Your task to perform on an android device: toggle location history Image 0: 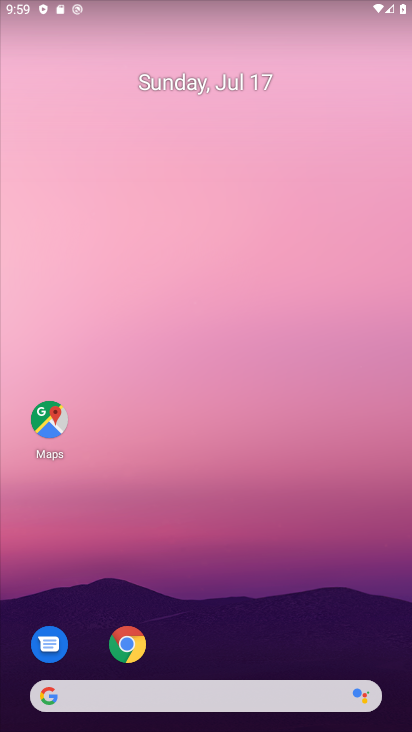
Step 0: drag from (228, 615) to (75, 37)
Your task to perform on an android device: toggle location history Image 1: 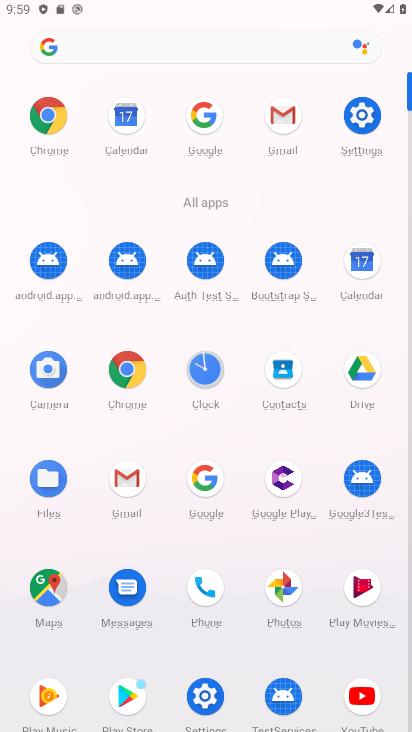
Step 1: click (359, 111)
Your task to perform on an android device: toggle location history Image 2: 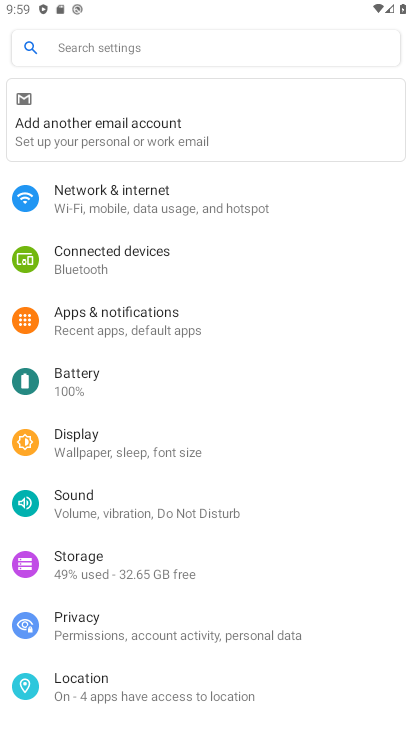
Step 2: click (111, 675)
Your task to perform on an android device: toggle location history Image 3: 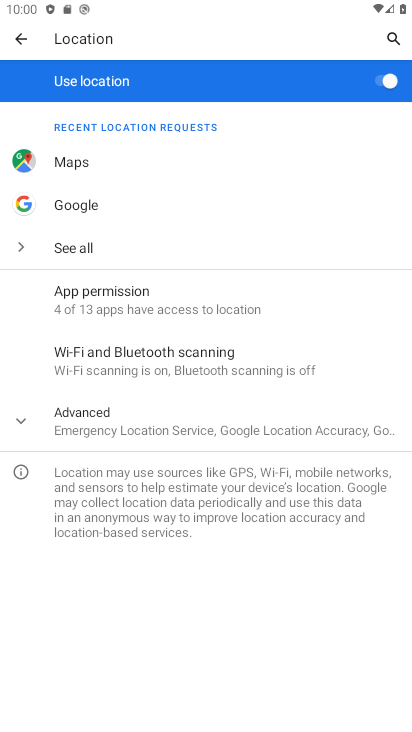
Step 3: click (130, 428)
Your task to perform on an android device: toggle location history Image 4: 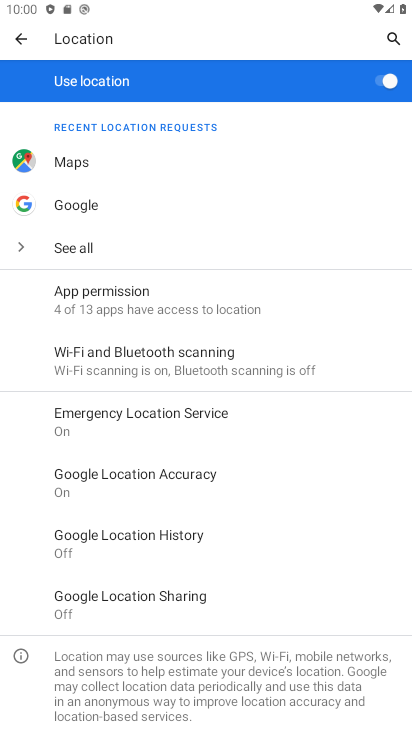
Step 4: click (198, 531)
Your task to perform on an android device: toggle location history Image 5: 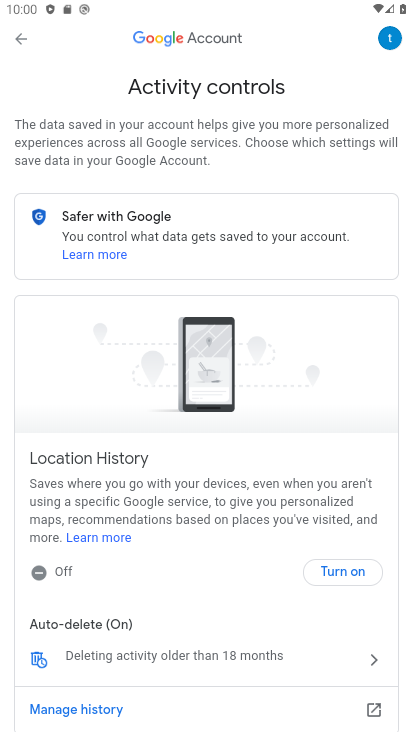
Step 5: click (345, 568)
Your task to perform on an android device: toggle location history Image 6: 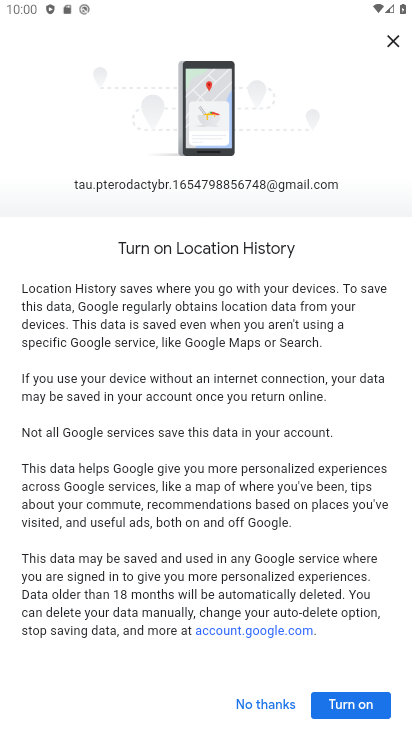
Step 6: drag from (271, 616) to (266, 19)
Your task to perform on an android device: toggle location history Image 7: 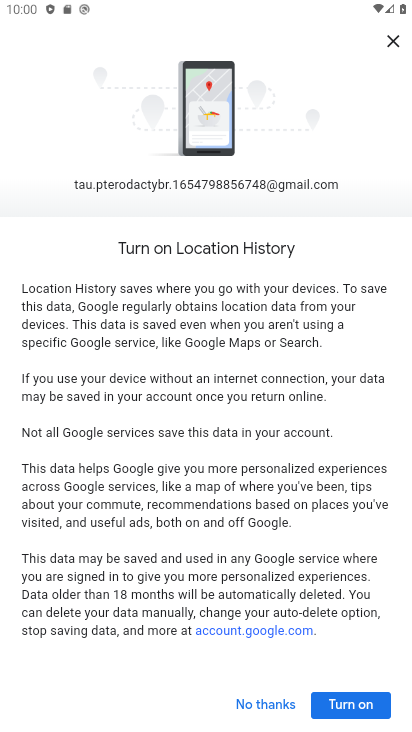
Step 7: drag from (213, 570) to (154, 17)
Your task to perform on an android device: toggle location history Image 8: 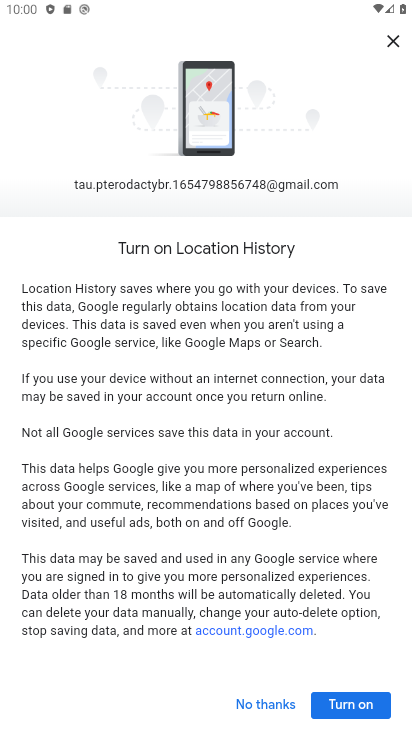
Step 8: click (362, 708)
Your task to perform on an android device: toggle location history Image 9: 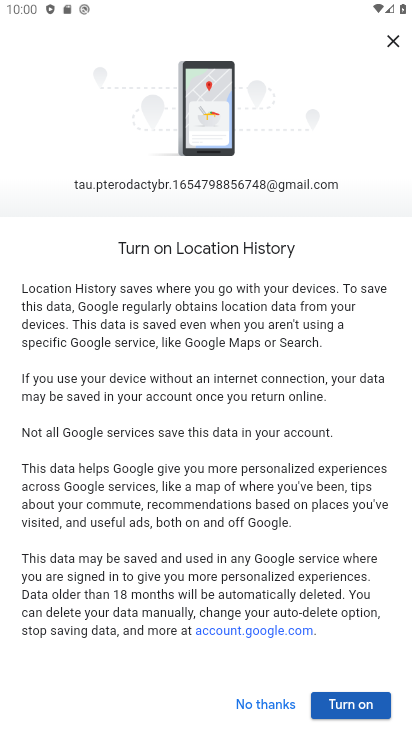
Step 9: click (361, 707)
Your task to perform on an android device: toggle location history Image 10: 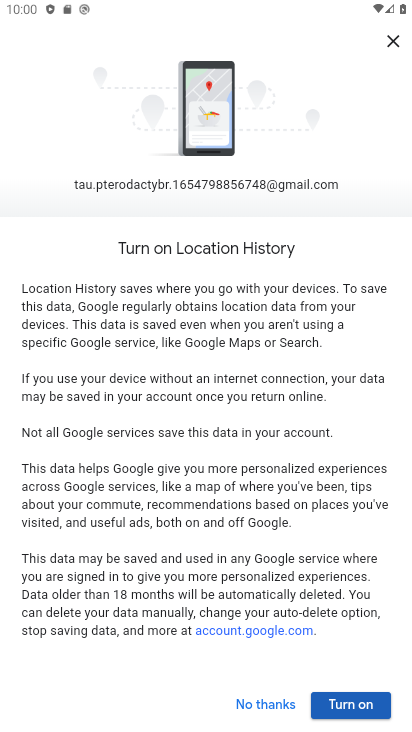
Step 10: click (339, 706)
Your task to perform on an android device: toggle location history Image 11: 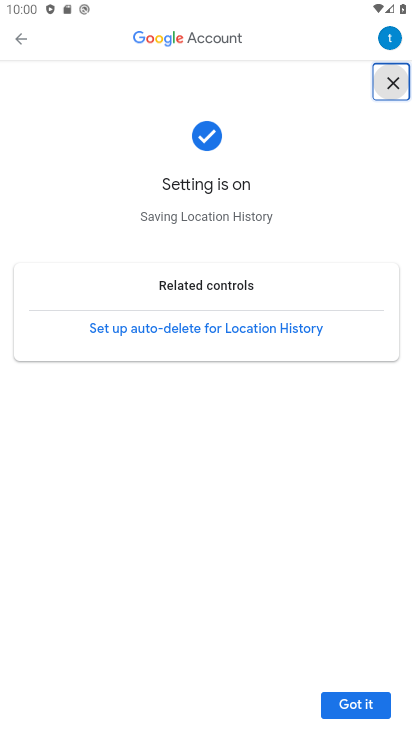
Step 11: click (339, 706)
Your task to perform on an android device: toggle location history Image 12: 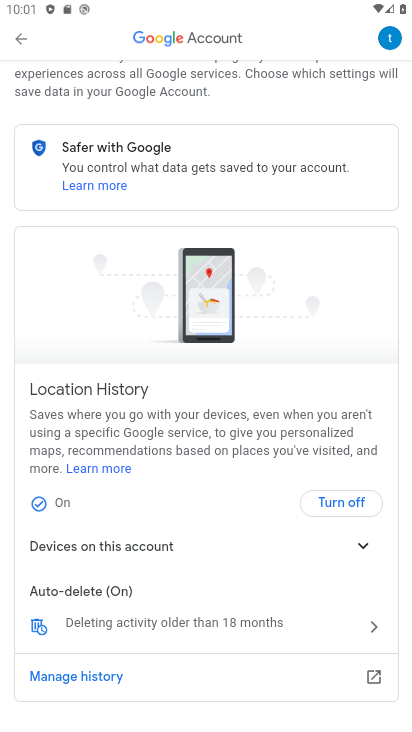
Step 12: task complete